Your task to perform on an android device: check the backup settings in the google photos Image 0: 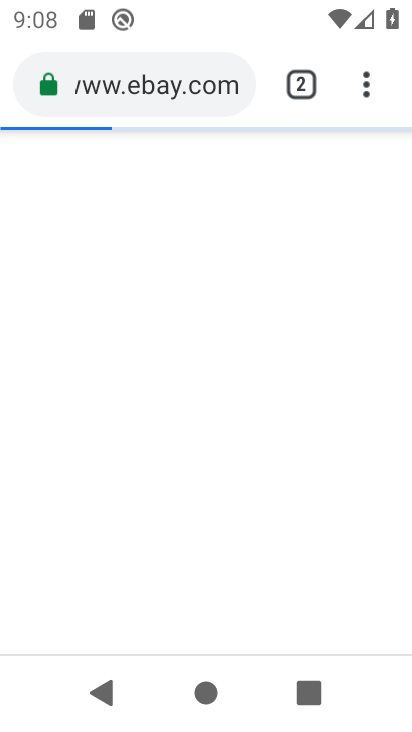
Step 0: press home button
Your task to perform on an android device: check the backup settings in the google photos Image 1: 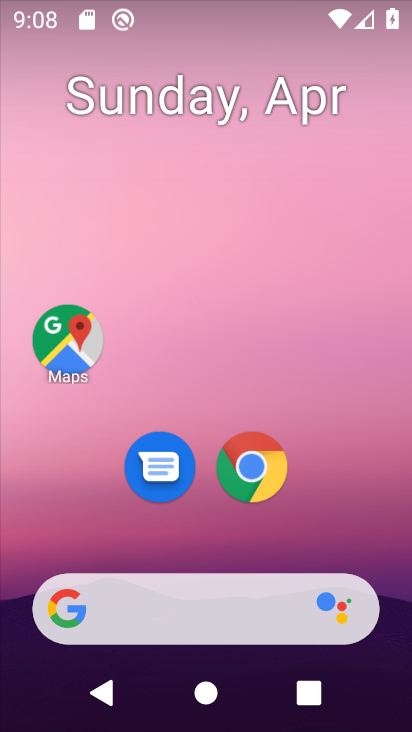
Step 1: drag from (311, 555) to (383, 80)
Your task to perform on an android device: check the backup settings in the google photos Image 2: 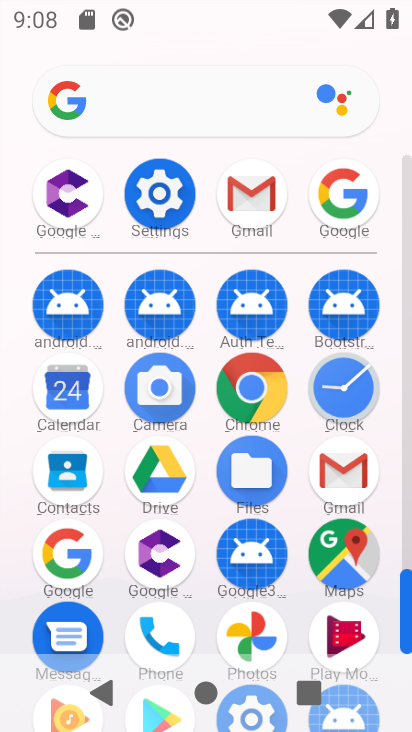
Step 2: click (244, 626)
Your task to perform on an android device: check the backup settings in the google photos Image 3: 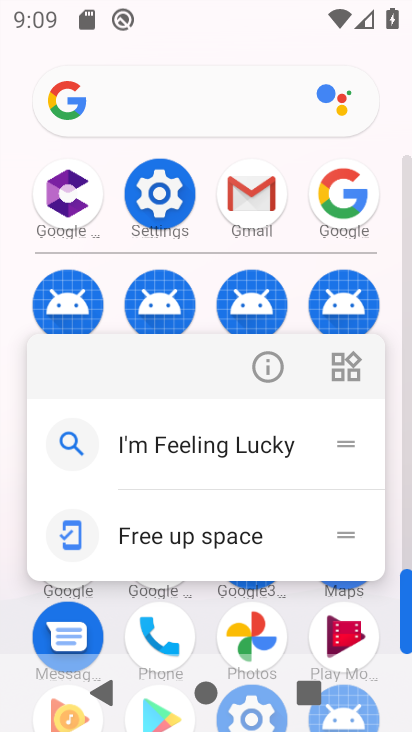
Step 3: click (245, 629)
Your task to perform on an android device: check the backup settings in the google photos Image 4: 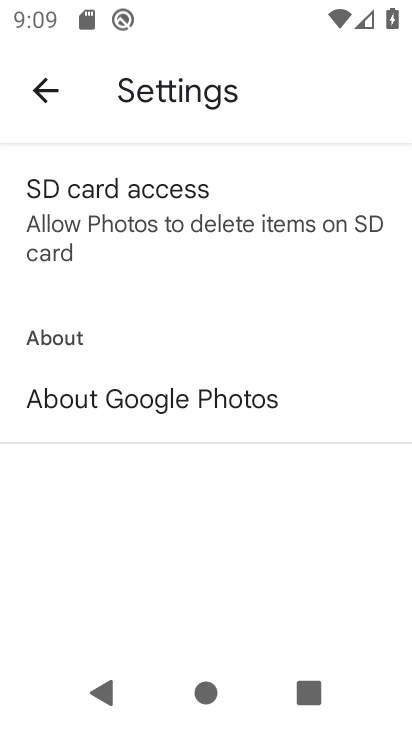
Step 4: click (40, 85)
Your task to perform on an android device: check the backup settings in the google photos Image 5: 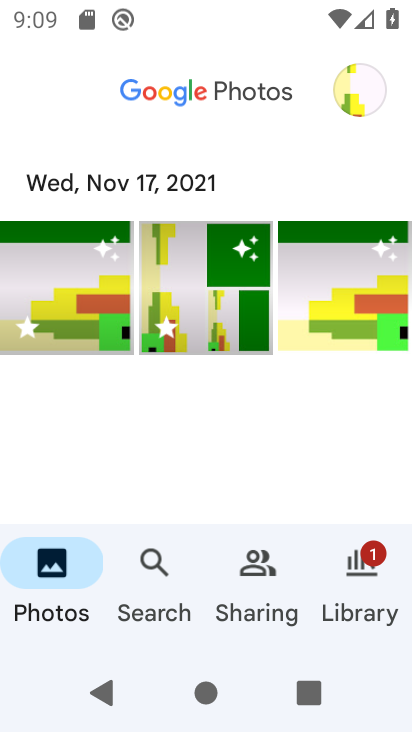
Step 5: click (350, 84)
Your task to perform on an android device: check the backup settings in the google photos Image 6: 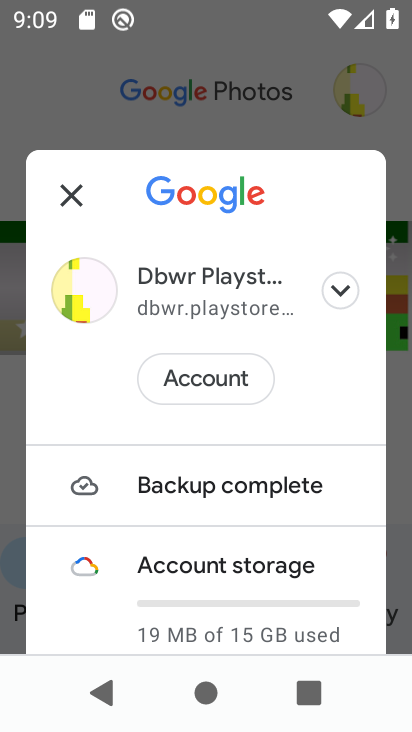
Step 6: drag from (238, 555) to (252, 197)
Your task to perform on an android device: check the backup settings in the google photos Image 7: 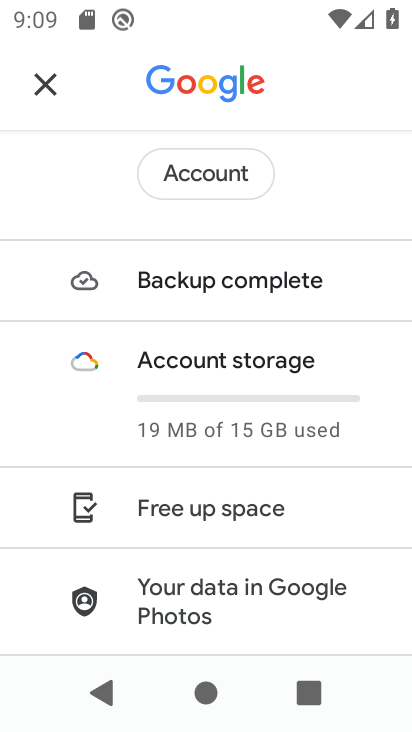
Step 7: drag from (186, 544) to (190, 199)
Your task to perform on an android device: check the backup settings in the google photos Image 8: 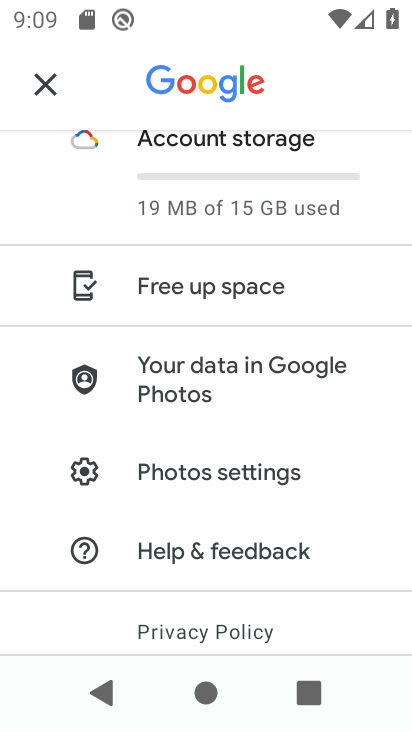
Step 8: click (235, 483)
Your task to perform on an android device: check the backup settings in the google photos Image 9: 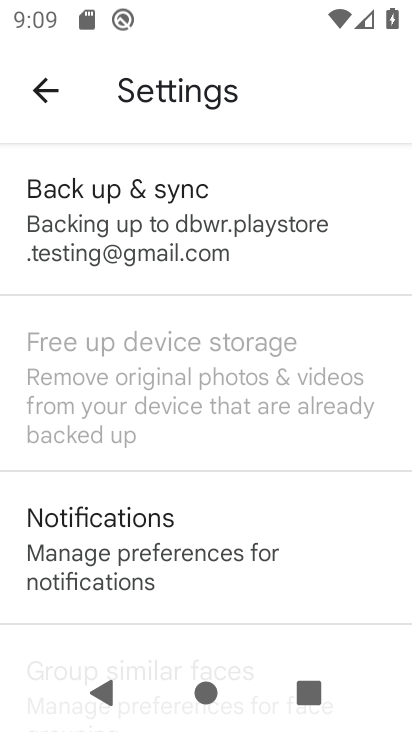
Step 9: click (201, 217)
Your task to perform on an android device: check the backup settings in the google photos Image 10: 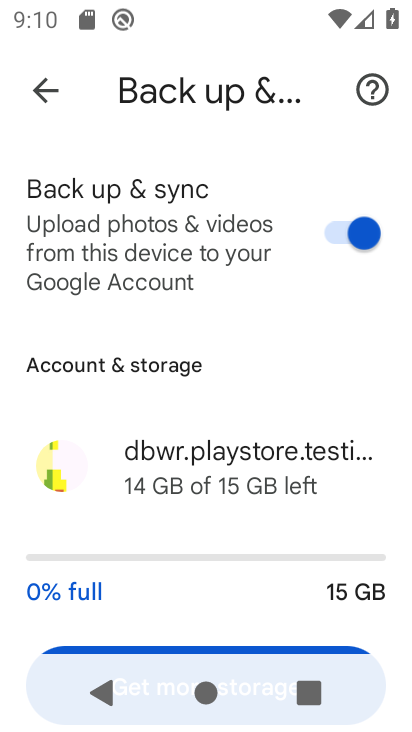
Step 10: task complete